Your task to perform on an android device: check storage Image 0: 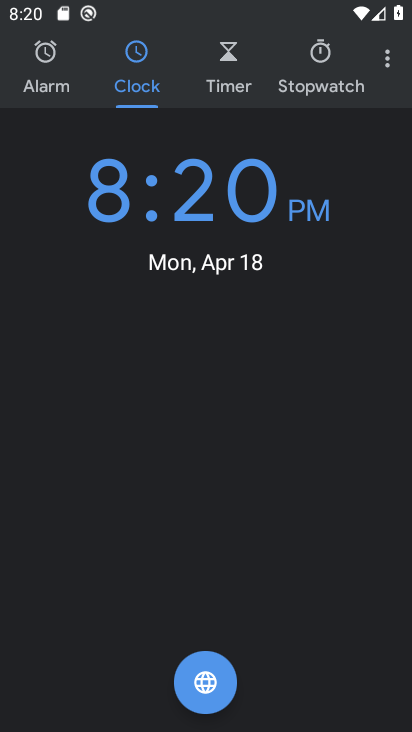
Step 0: press back button
Your task to perform on an android device: check storage Image 1: 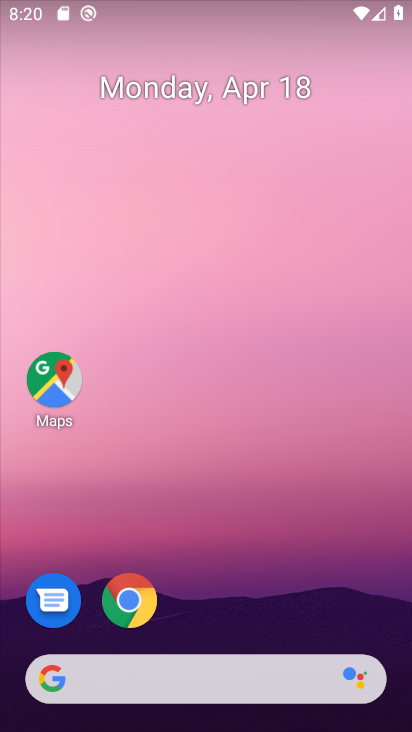
Step 1: drag from (386, 632) to (273, 27)
Your task to perform on an android device: check storage Image 2: 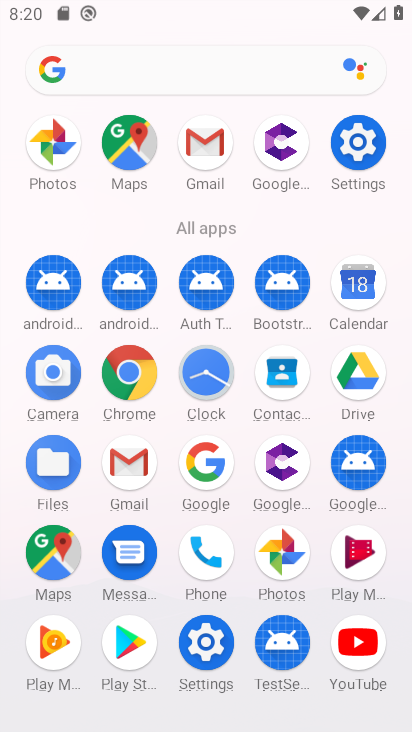
Step 2: click (205, 643)
Your task to perform on an android device: check storage Image 3: 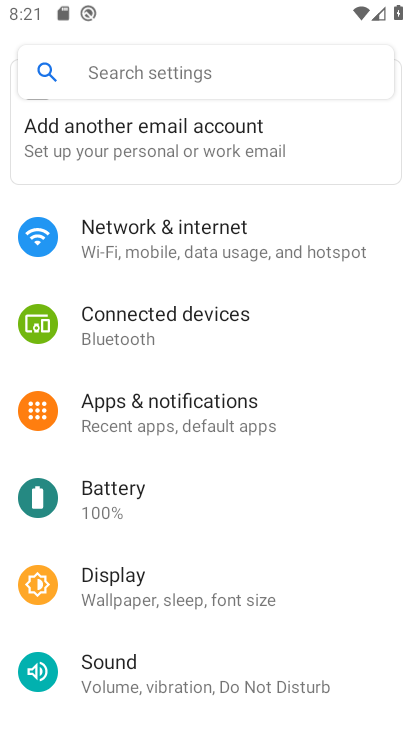
Step 3: drag from (193, 563) to (222, 185)
Your task to perform on an android device: check storage Image 4: 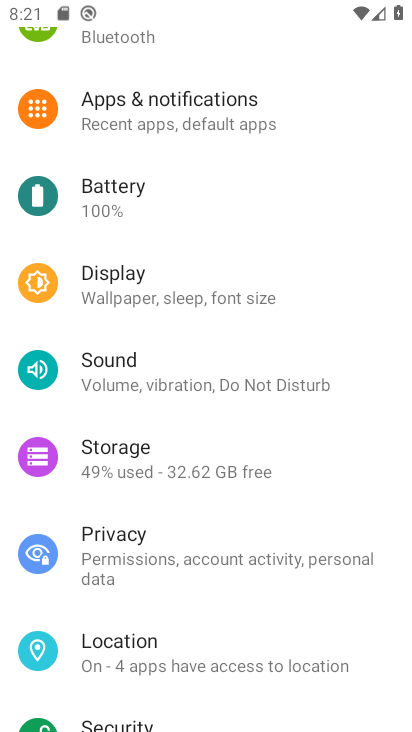
Step 4: click (134, 447)
Your task to perform on an android device: check storage Image 5: 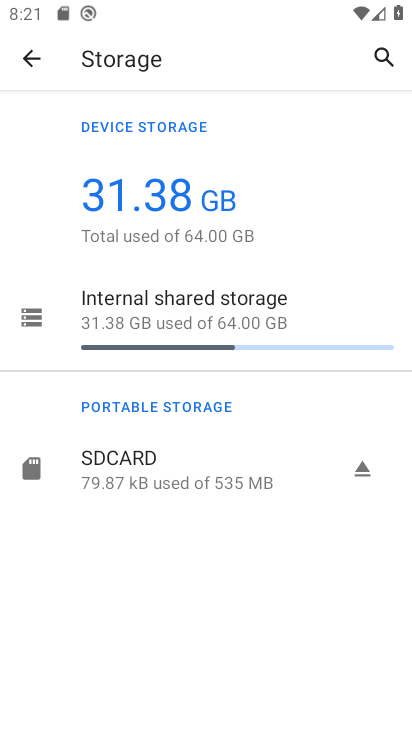
Step 5: task complete